Your task to perform on an android device: check storage Image 0: 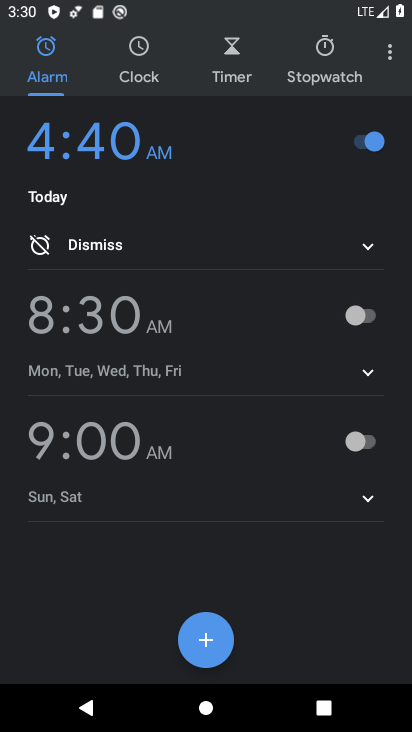
Step 0: press back button
Your task to perform on an android device: check storage Image 1: 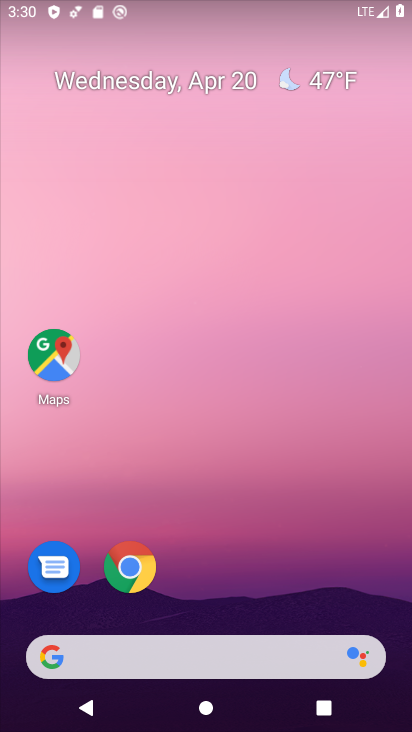
Step 1: drag from (309, 438) to (212, 17)
Your task to perform on an android device: check storage Image 2: 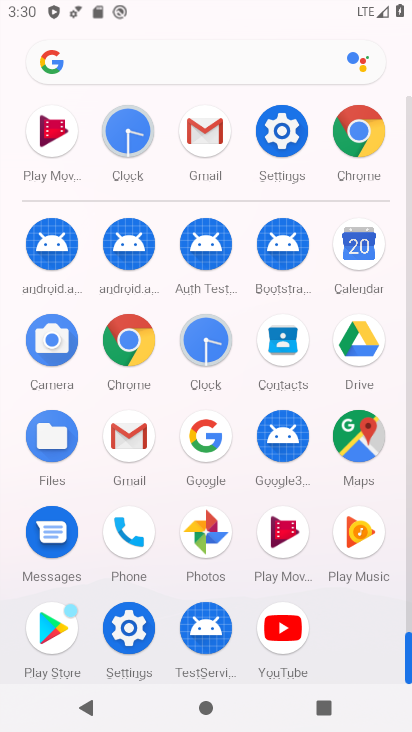
Step 2: click (284, 128)
Your task to perform on an android device: check storage Image 3: 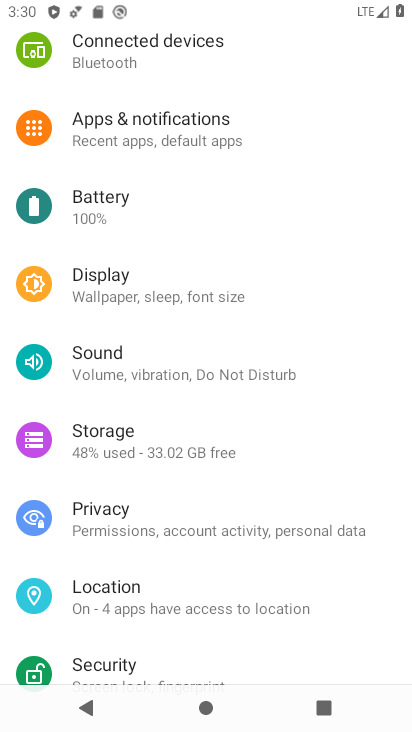
Step 3: click (121, 430)
Your task to perform on an android device: check storage Image 4: 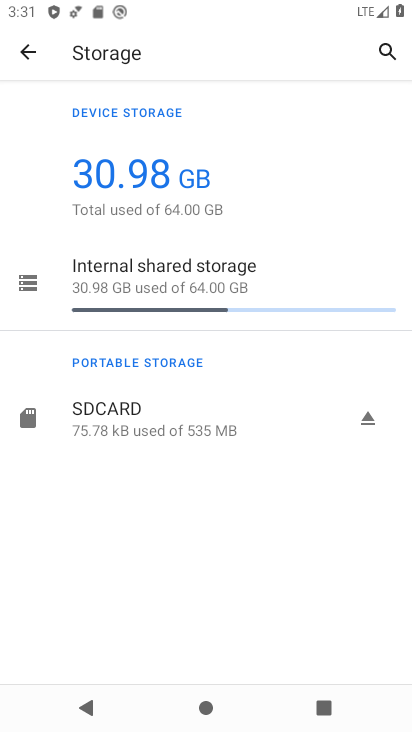
Step 4: task complete